Your task to perform on an android device: find photos in the google photos app Image 0: 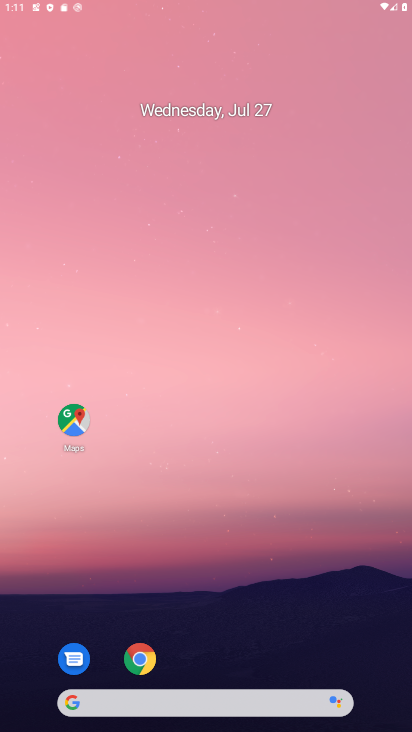
Step 0: press home button
Your task to perform on an android device: find photos in the google photos app Image 1: 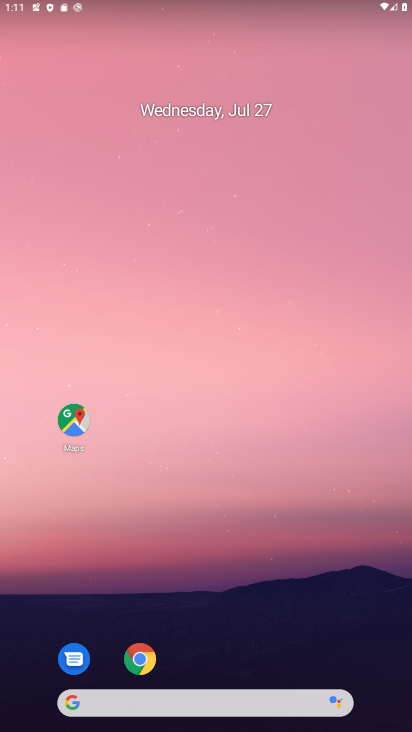
Step 1: drag from (305, 640) to (265, 64)
Your task to perform on an android device: find photos in the google photos app Image 2: 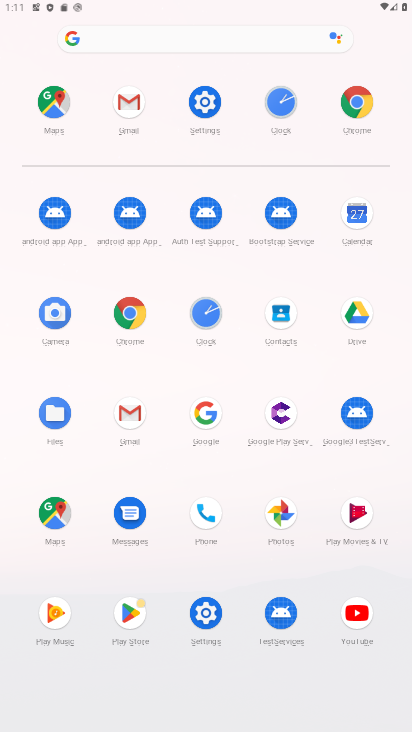
Step 2: click (279, 521)
Your task to perform on an android device: find photos in the google photos app Image 3: 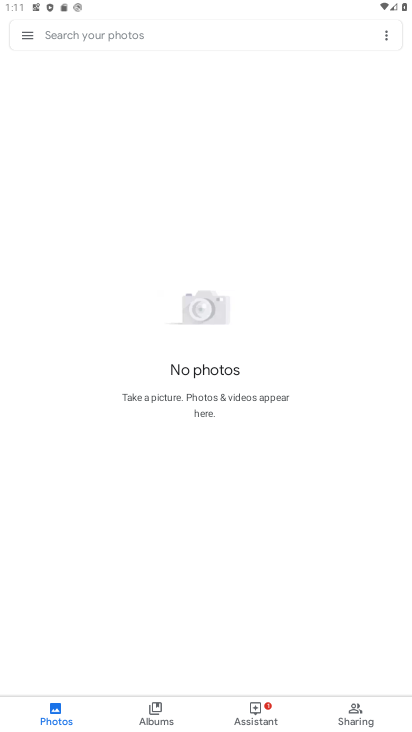
Step 3: task complete